Your task to perform on an android device: change notification settings in the gmail app Image 0: 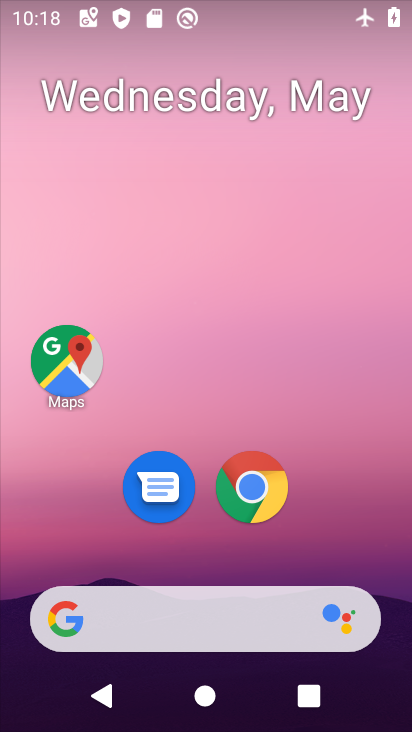
Step 0: drag from (209, 518) to (355, 11)
Your task to perform on an android device: change notification settings in the gmail app Image 1: 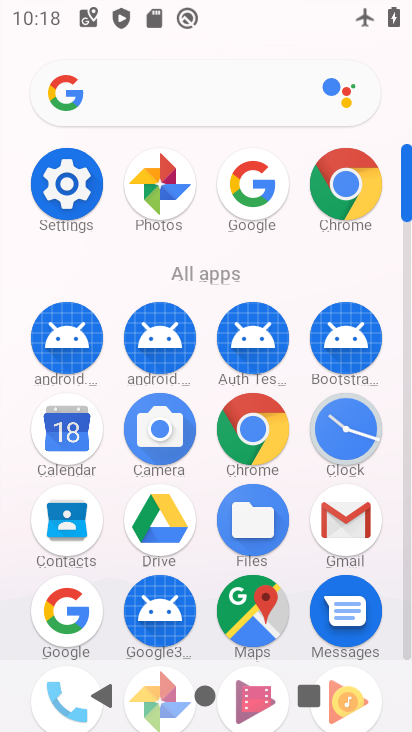
Step 1: click (58, 174)
Your task to perform on an android device: change notification settings in the gmail app Image 2: 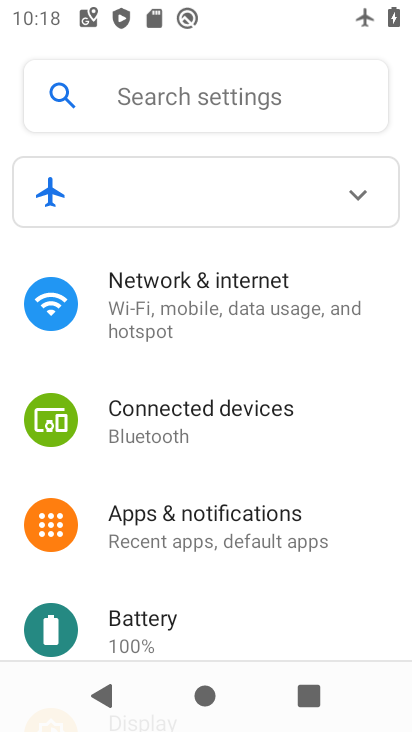
Step 2: click (218, 546)
Your task to perform on an android device: change notification settings in the gmail app Image 3: 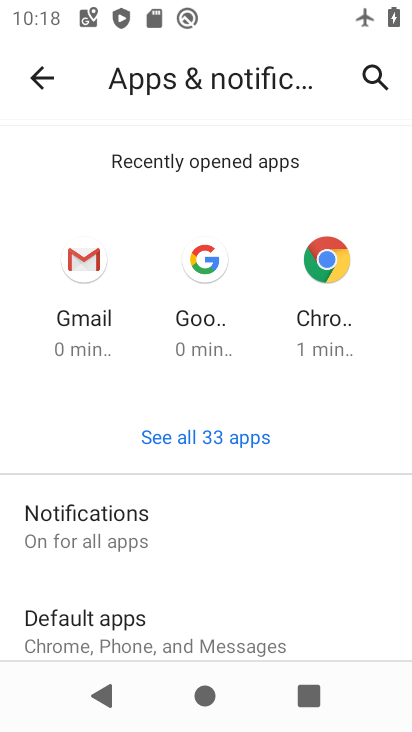
Step 3: click (128, 536)
Your task to perform on an android device: change notification settings in the gmail app Image 4: 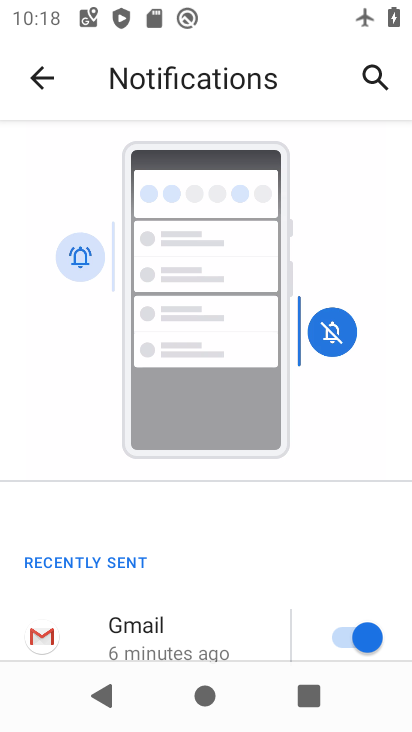
Step 4: drag from (320, 629) to (223, 93)
Your task to perform on an android device: change notification settings in the gmail app Image 5: 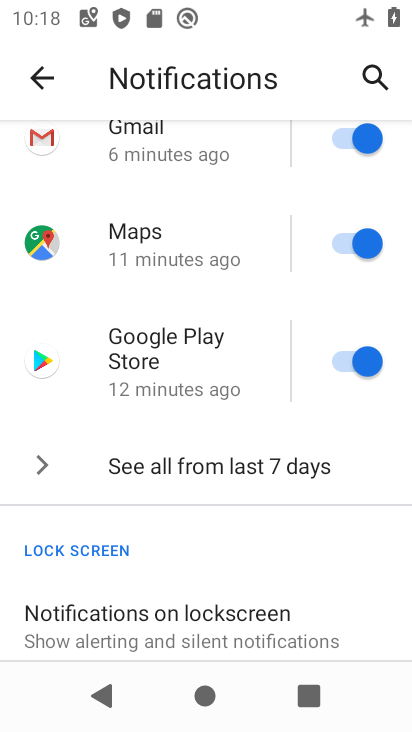
Step 5: drag from (196, 595) to (145, 127)
Your task to perform on an android device: change notification settings in the gmail app Image 6: 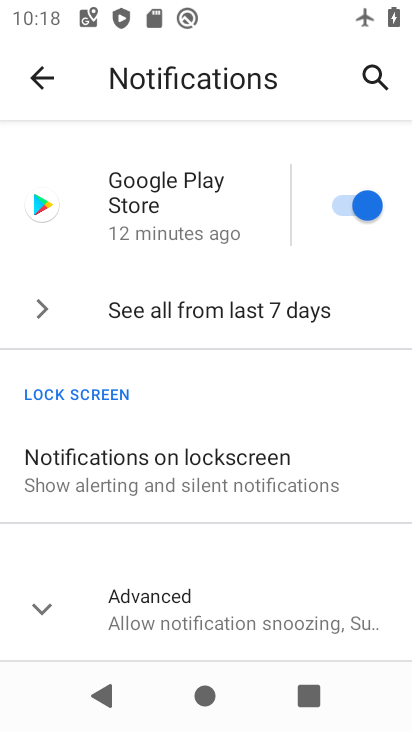
Step 6: click (199, 627)
Your task to perform on an android device: change notification settings in the gmail app Image 7: 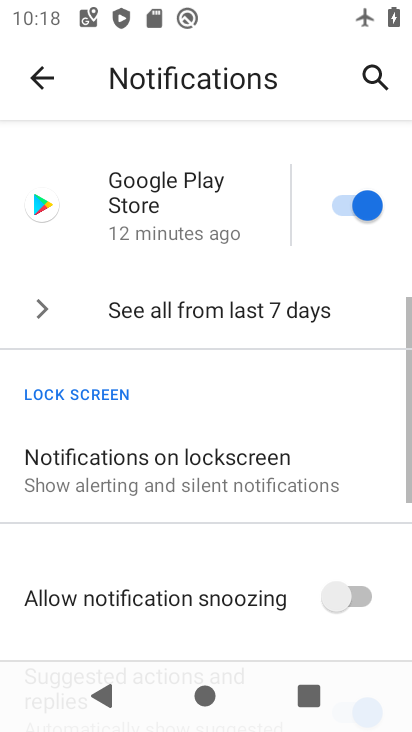
Step 7: drag from (216, 609) to (149, 714)
Your task to perform on an android device: change notification settings in the gmail app Image 8: 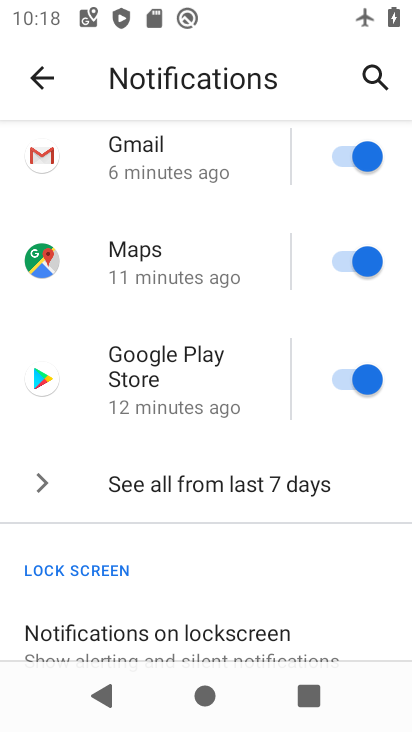
Step 8: drag from (176, 479) to (144, 166)
Your task to perform on an android device: change notification settings in the gmail app Image 9: 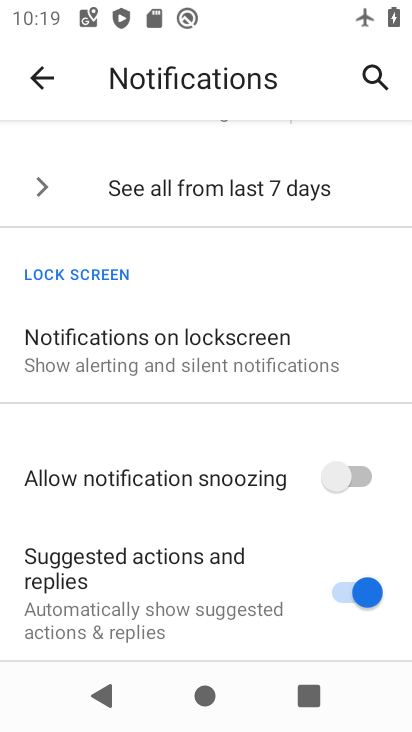
Step 9: click (181, 171)
Your task to perform on an android device: change notification settings in the gmail app Image 10: 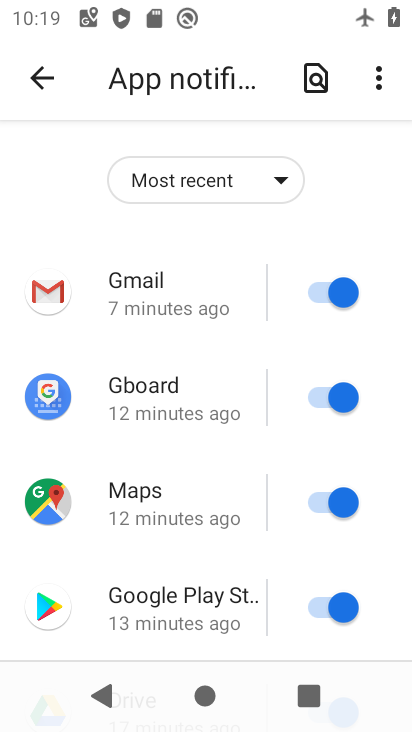
Step 10: click (220, 185)
Your task to perform on an android device: change notification settings in the gmail app Image 11: 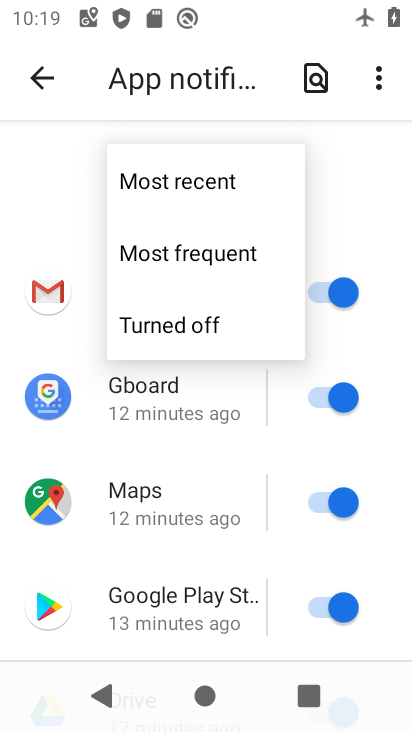
Step 11: click (202, 318)
Your task to perform on an android device: change notification settings in the gmail app Image 12: 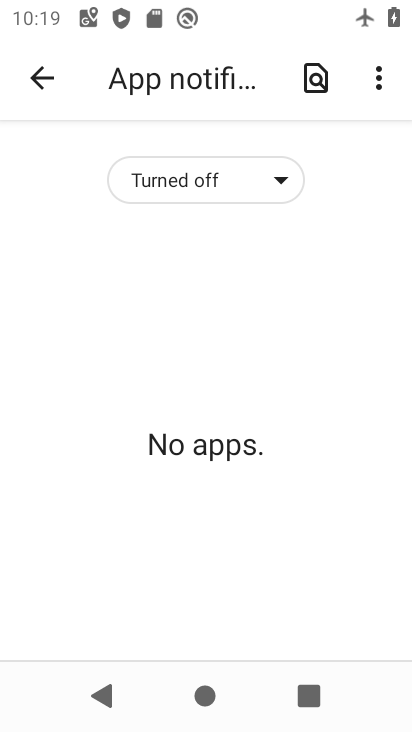
Step 12: task complete